Your task to perform on an android device: empty trash in the gmail app Image 0: 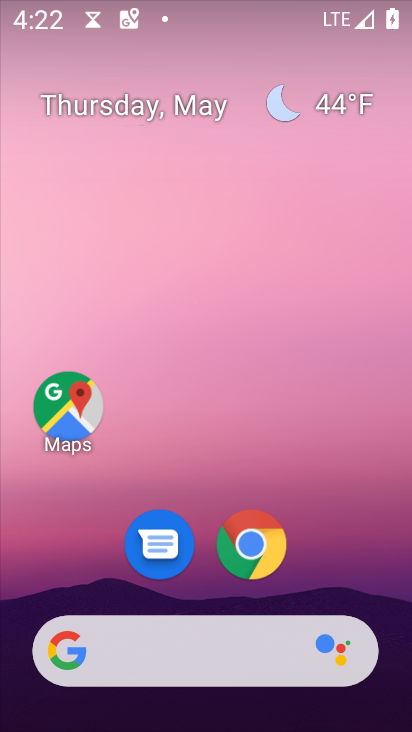
Step 0: drag from (324, 581) to (411, 164)
Your task to perform on an android device: empty trash in the gmail app Image 1: 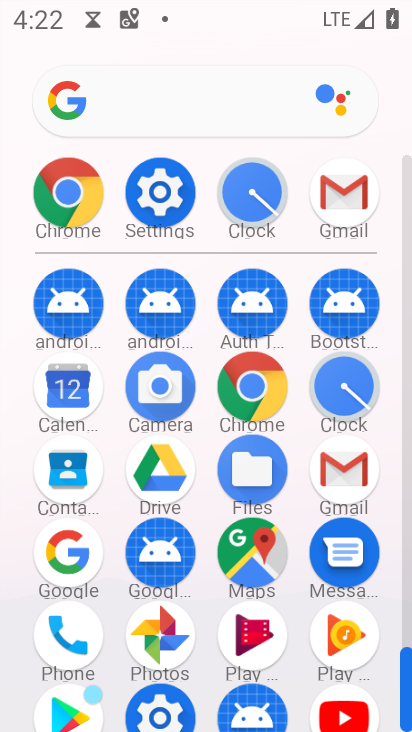
Step 1: click (345, 462)
Your task to perform on an android device: empty trash in the gmail app Image 2: 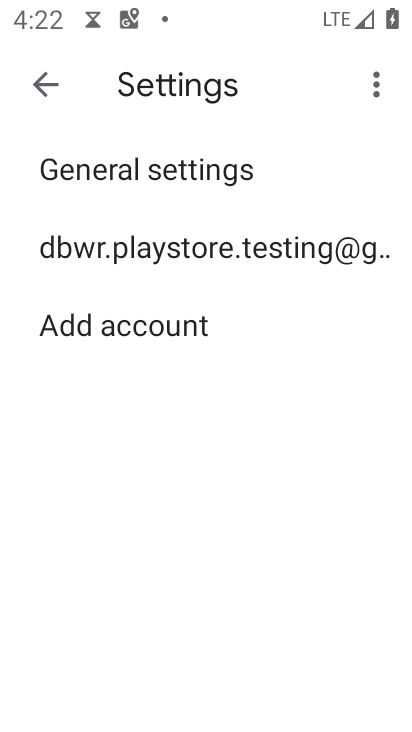
Step 2: click (49, 90)
Your task to perform on an android device: empty trash in the gmail app Image 3: 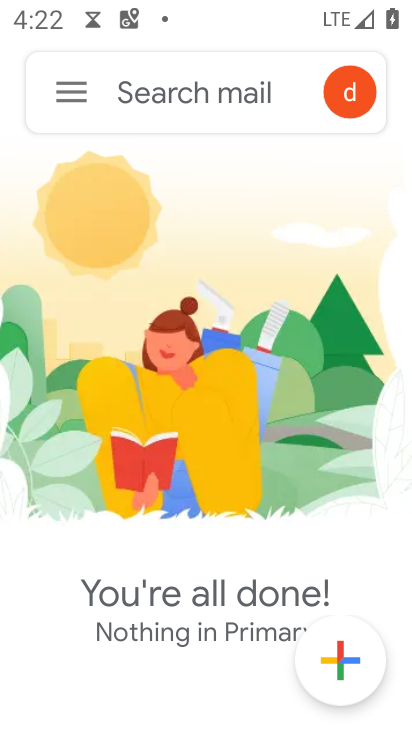
Step 3: click (62, 85)
Your task to perform on an android device: empty trash in the gmail app Image 4: 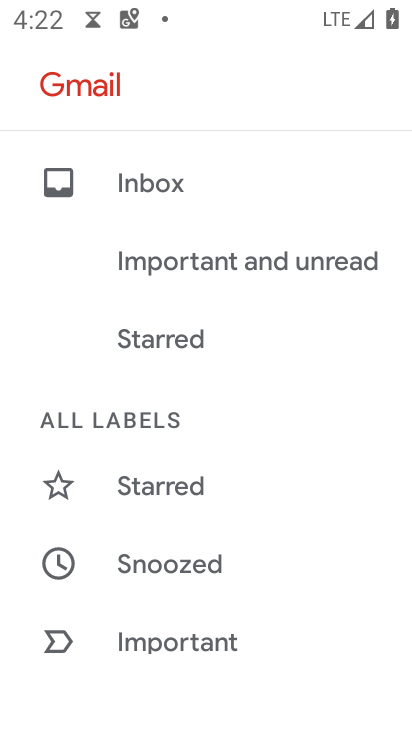
Step 4: drag from (201, 621) to (230, 379)
Your task to perform on an android device: empty trash in the gmail app Image 5: 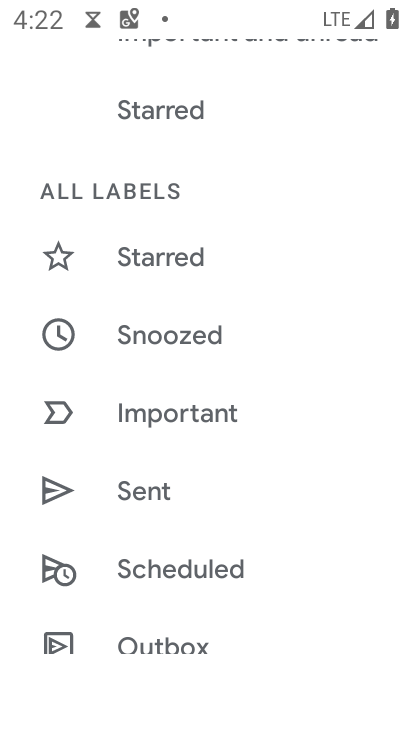
Step 5: drag from (251, 618) to (317, 425)
Your task to perform on an android device: empty trash in the gmail app Image 6: 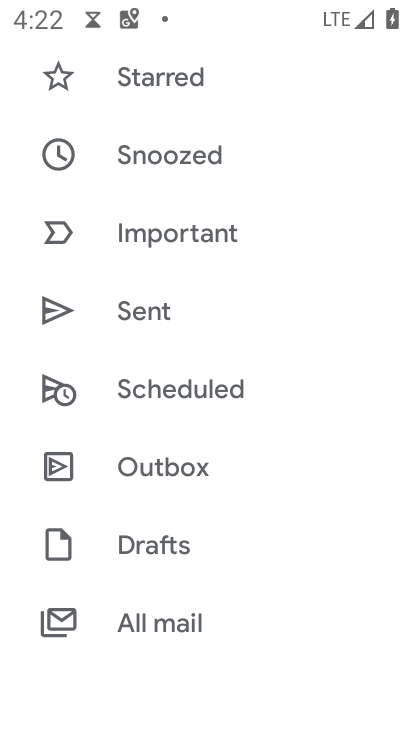
Step 6: drag from (148, 620) to (201, 431)
Your task to perform on an android device: empty trash in the gmail app Image 7: 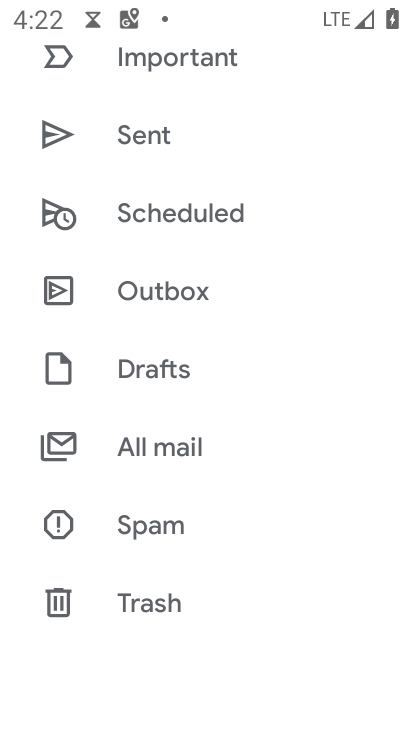
Step 7: click (172, 599)
Your task to perform on an android device: empty trash in the gmail app Image 8: 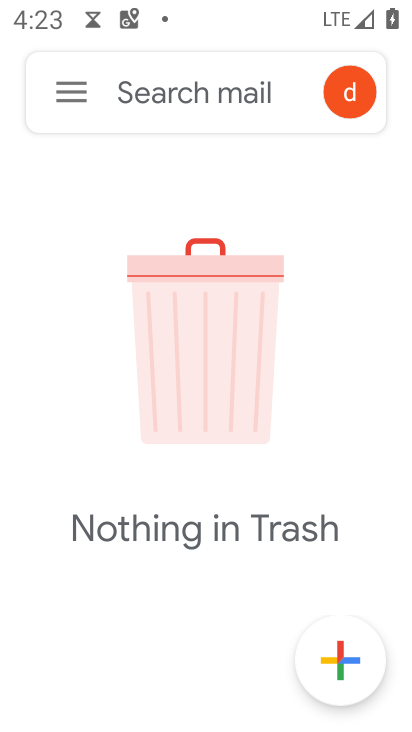
Step 8: task complete